Your task to perform on an android device: toggle improve location accuracy Image 0: 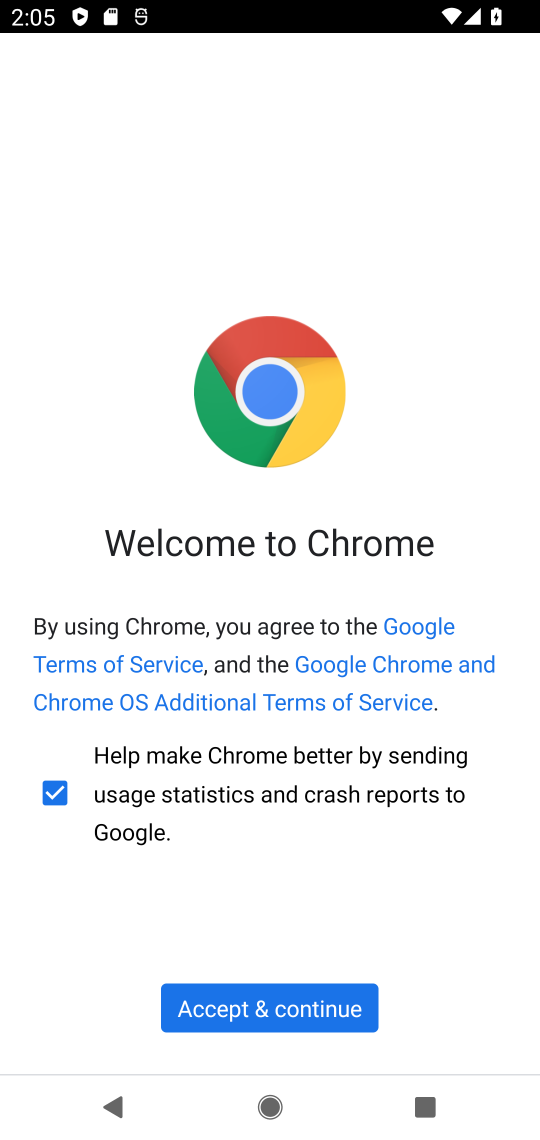
Step 0: press home button
Your task to perform on an android device: toggle improve location accuracy Image 1: 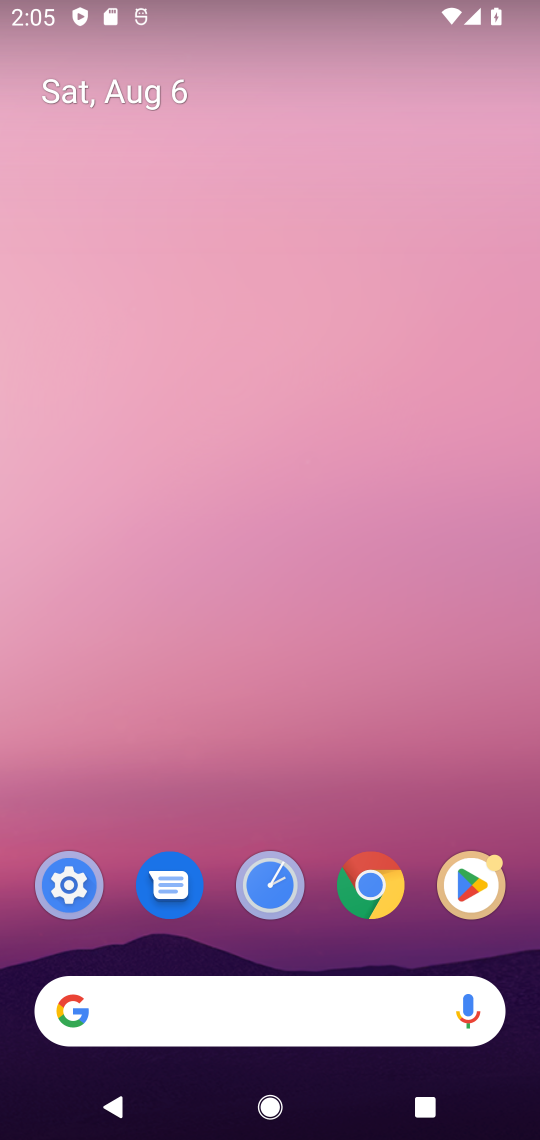
Step 1: drag from (478, 683) to (244, 5)
Your task to perform on an android device: toggle improve location accuracy Image 2: 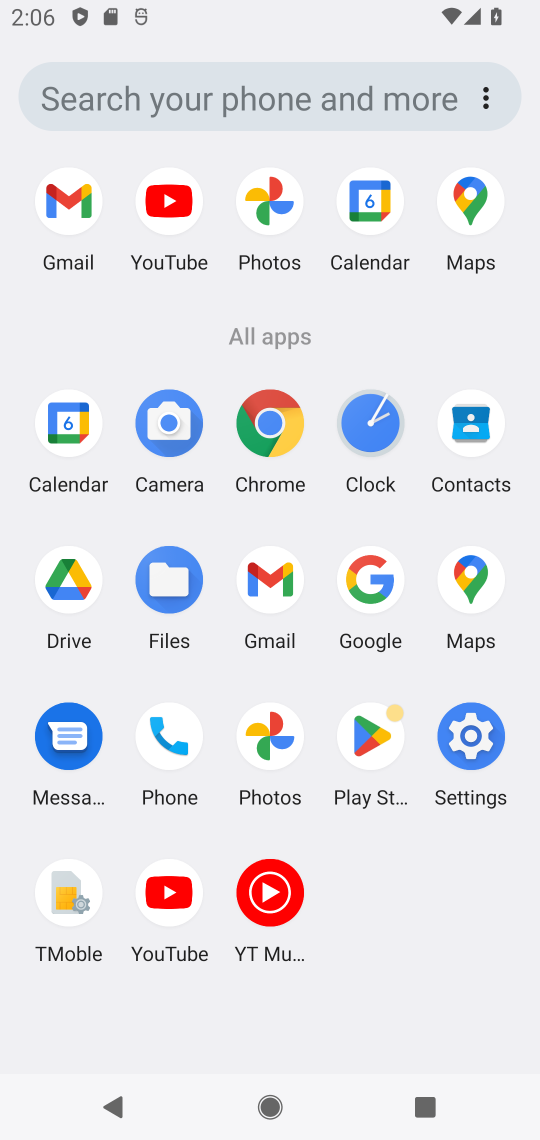
Step 2: click (481, 739)
Your task to perform on an android device: toggle improve location accuracy Image 3: 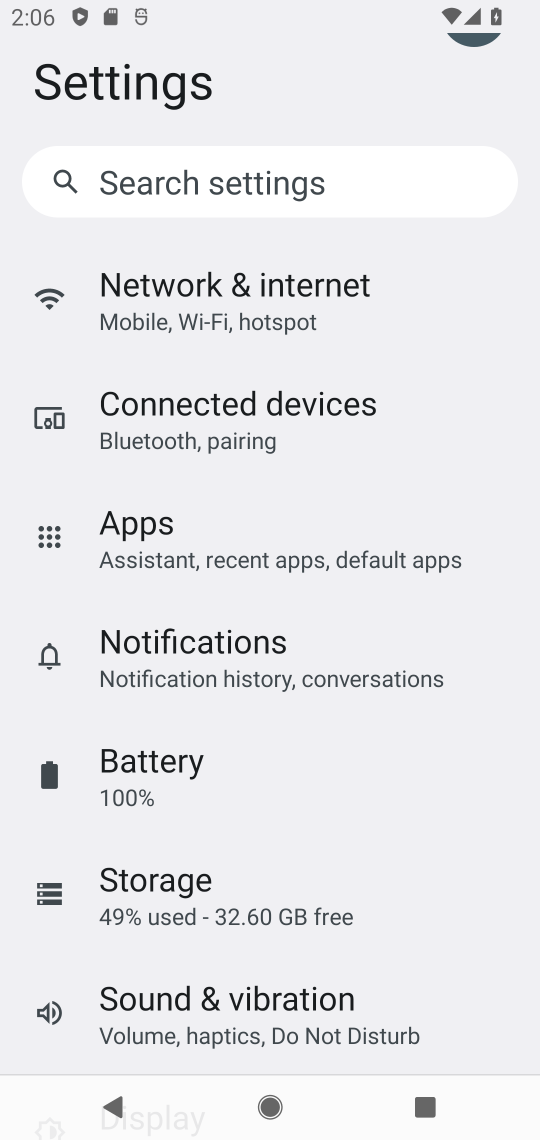
Step 3: drag from (265, 1022) to (295, 295)
Your task to perform on an android device: toggle improve location accuracy Image 4: 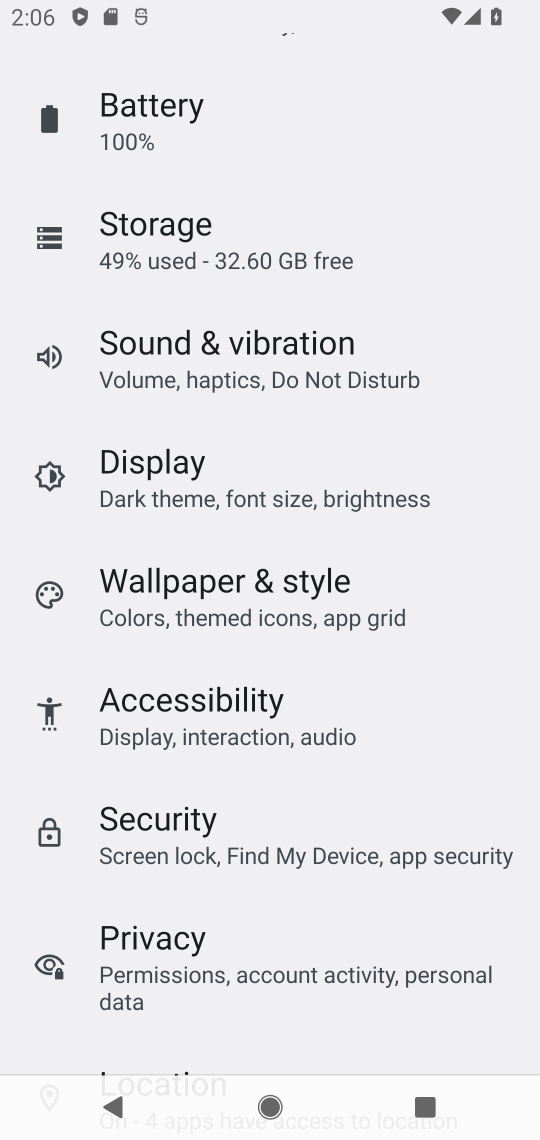
Step 4: drag from (159, 989) to (145, 254)
Your task to perform on an android device: toggle improve location accuracy Image 5: 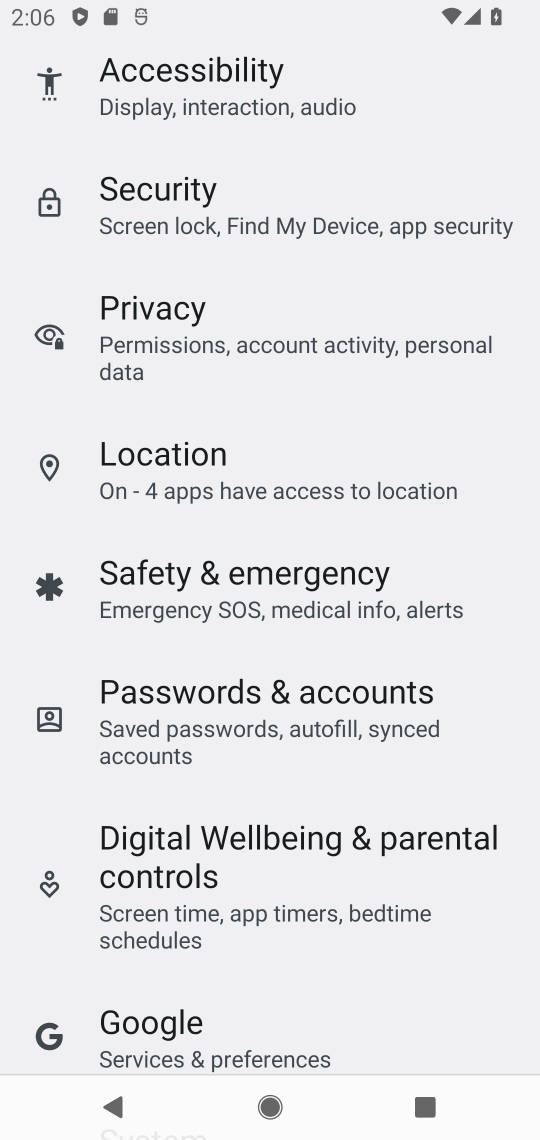
Step 5: click (192, 482)
Your task to perform on an android device: toggle improve location accuracy Image 6: 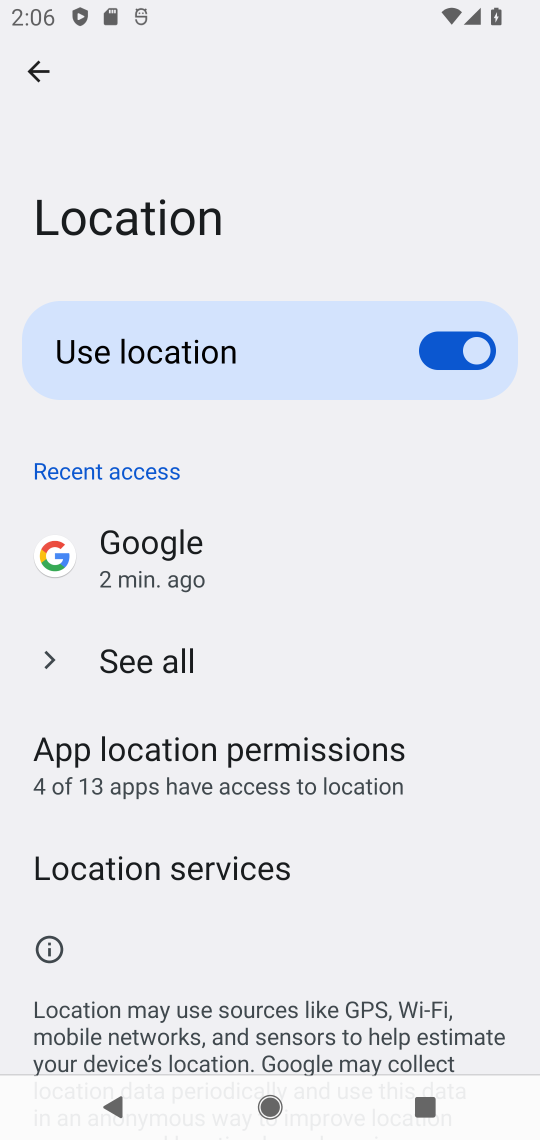
Step 6: click (145, 862)
Your task to perform on an android device: toggle improve location accuracy Image 7: 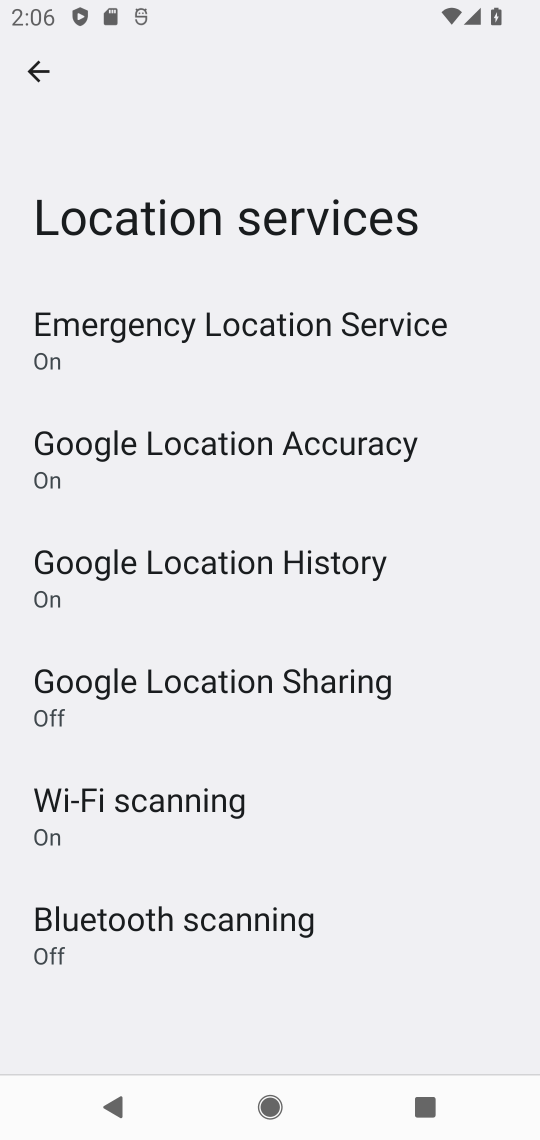
Step 7: click (221, 467)
Your task to perform on an android device: toggle improve location accuracy Image 8: 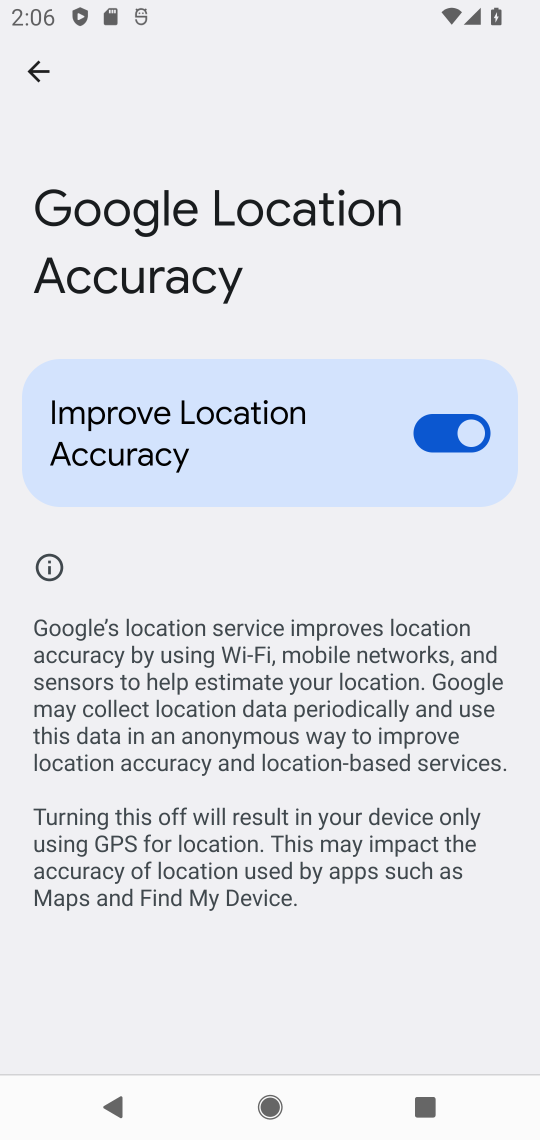
Step 8: click (412, 476)
Your task to perform on an android device: toggle improve location accuracy Image 9: 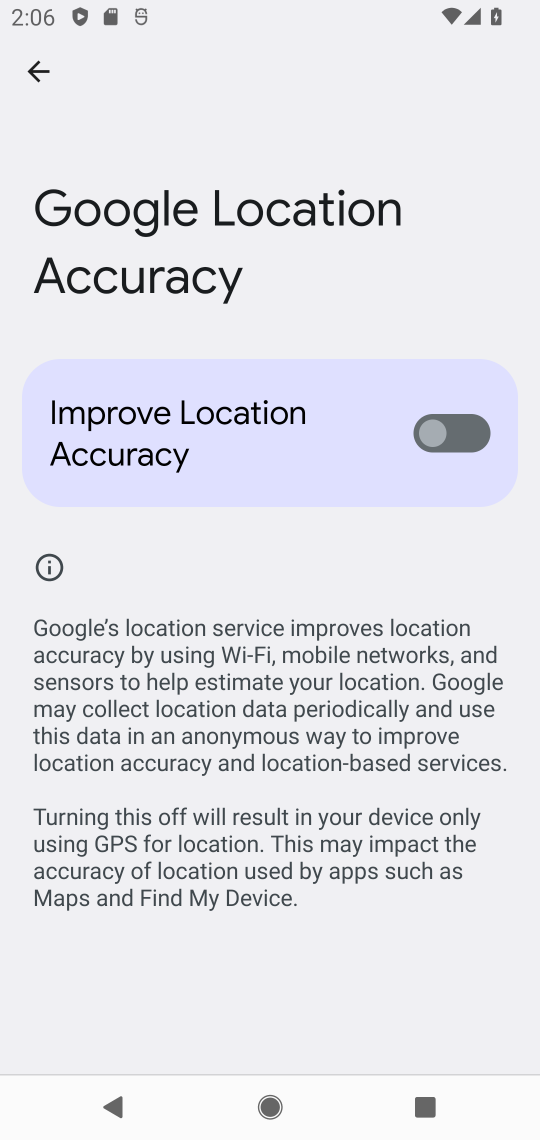
Step 9: task complete